Your task to perform on an android device: See recent photos Image 0: 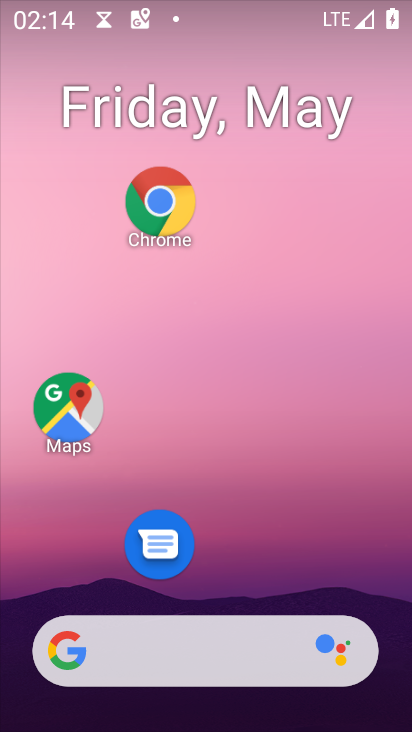
Step 0: drag from (232, 579) to (231, 285)
Your task to perform on an android device: See recent photos Image 1: 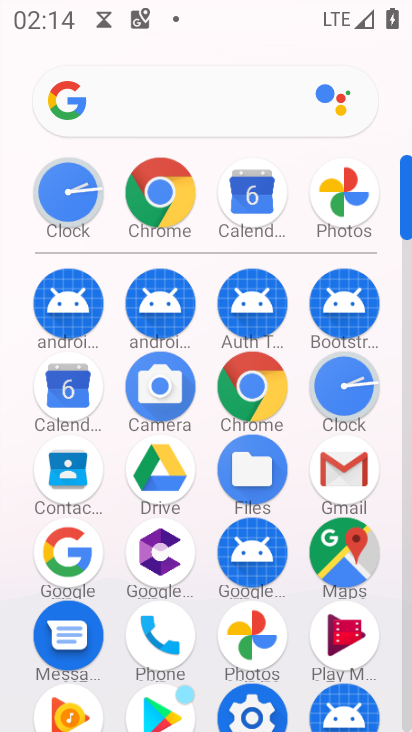
Step 1: click (248, 632)
Your task to perform on an android device: See recent photos Image 2: 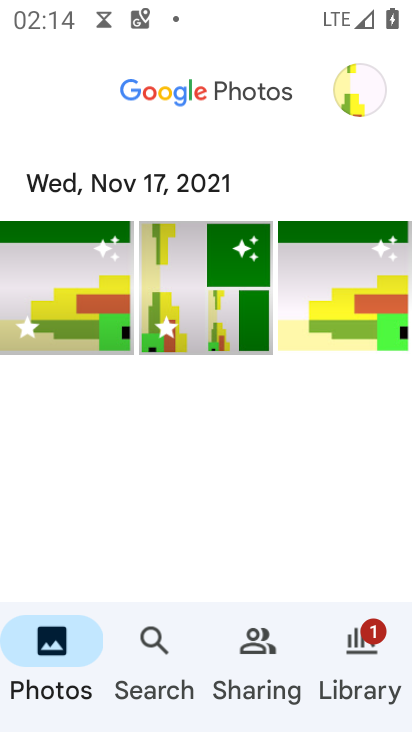
Step 2: click (359, 651)
Your task to perform on an android device: See recent photos Image 3: 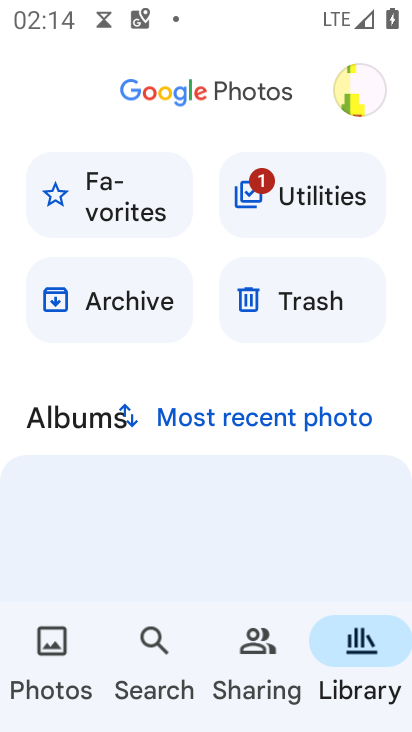
Step 3: click (63, 670)
Your task to perform on an android device: See recent photos Image 4: 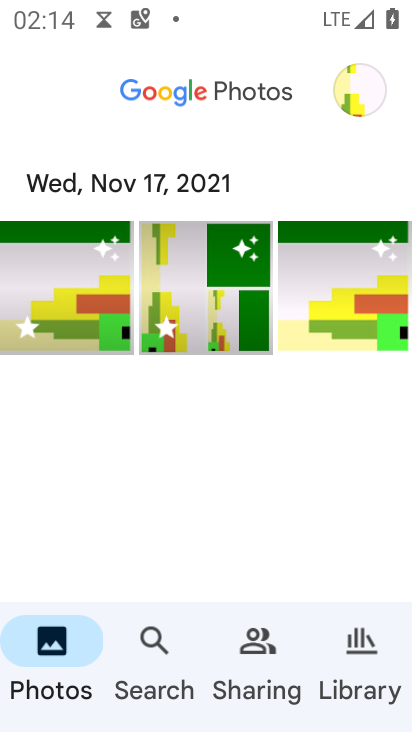
Step 4: task complete